Your task to perform on an android device: Show me popular games on the Play Store Image 0: 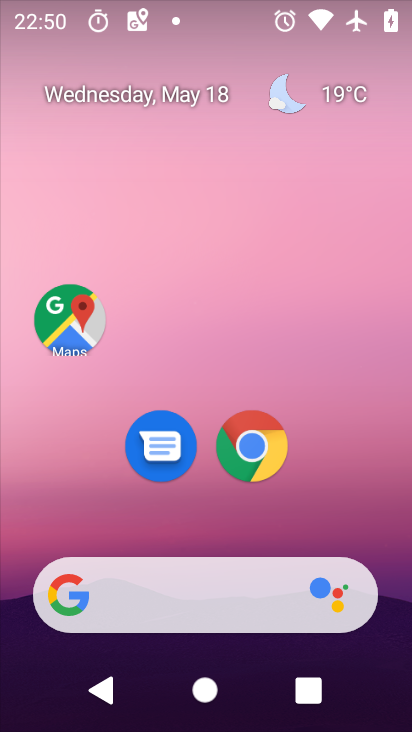
Step 0: drag from (210, 577) to (301, 147)
Your task to perform on an android device: Show me popular games on the Play Store Image 1: 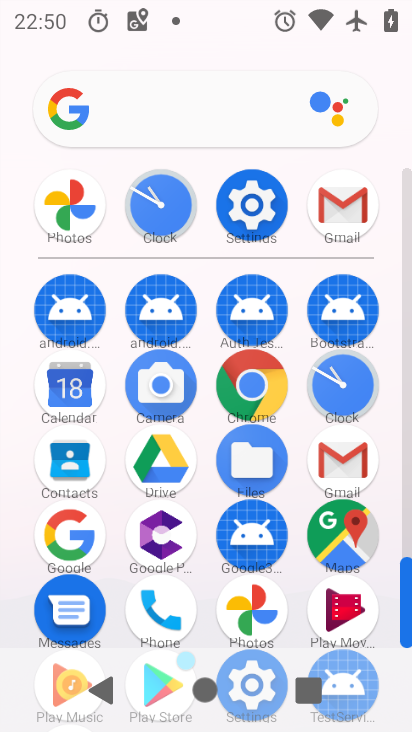
Step 1: drag from (200, 571) to (323, 131)
Your task to perform on an android device: Show me popular games on the Play Store Image 2: 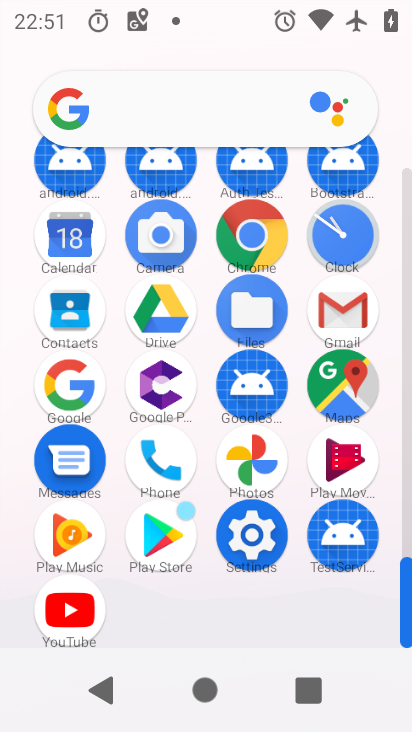
Step 2: click (174, 539)
Your task to perform on an android device: Show me popular games on the Play Store Image 3: 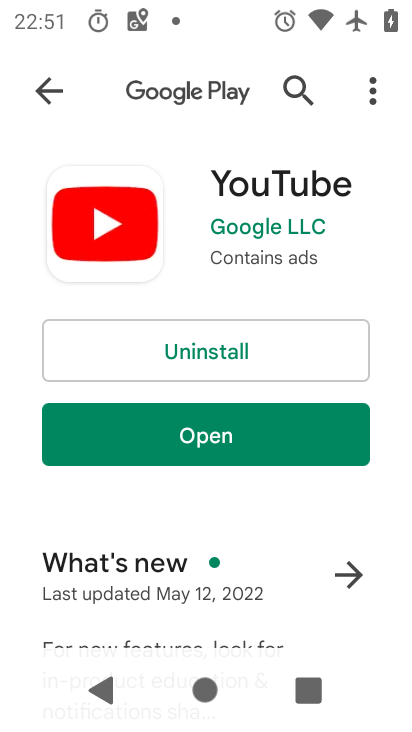
Step 3: click (52, 86)
Your task to perform on an android device: Show me popular games on the Play Store Image 4: 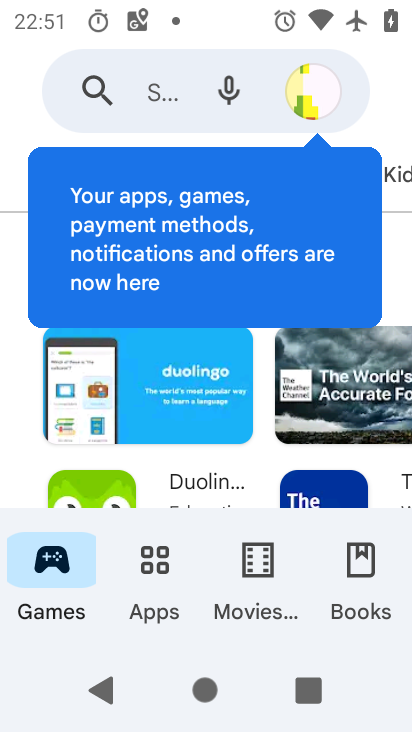
Step 4: drag from (197, 479) to (344, 38)
Your task to perform on an android device: Show me popular games on the Play Store Image 5: 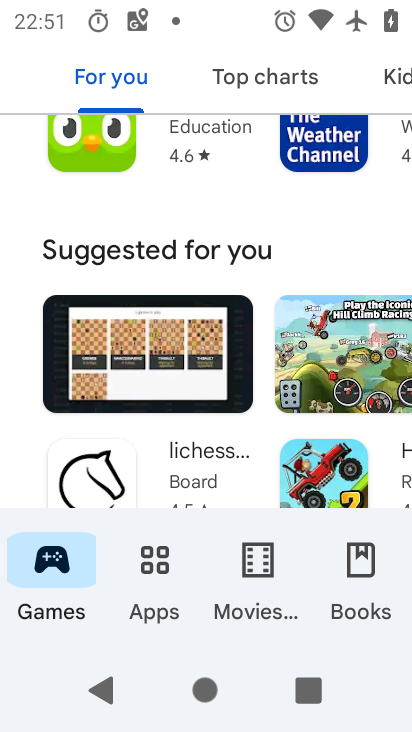
Step 5: drag from (189, 461) to (304, 60)
Your task to perform on an android device: Show me popular games on the Play Store Image 6: 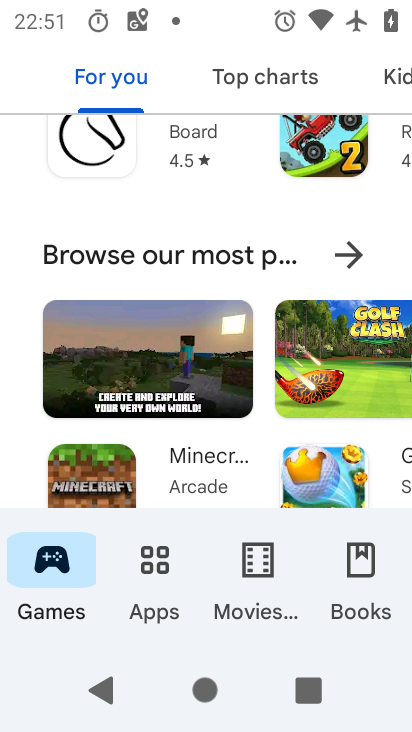
Step 6: click (229, 255)
Your task to perform on an android device: Show me popular games on the Play Store Image 7: 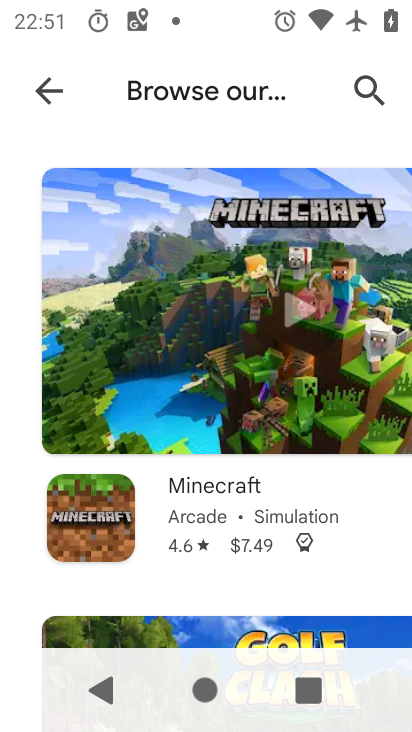
Step 7: task complete